Your task to perform on an android device: turn on notifications settings in the gmail app Image 0: 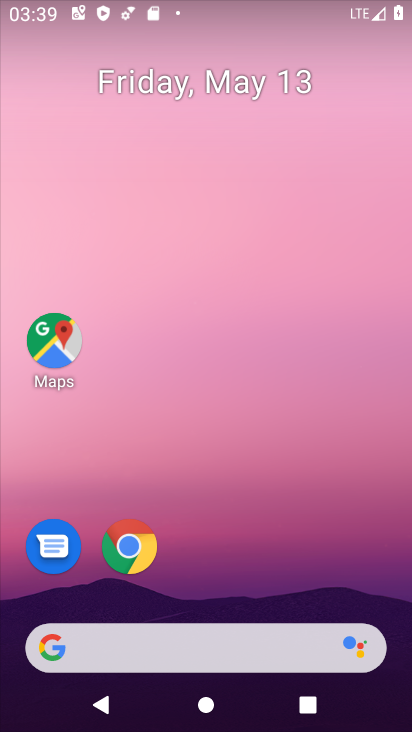
Step 0: drag from (204, 600) to (310, 15)
Your task to perform on an android device: turn on notifications settings in the gmail app Image 1: 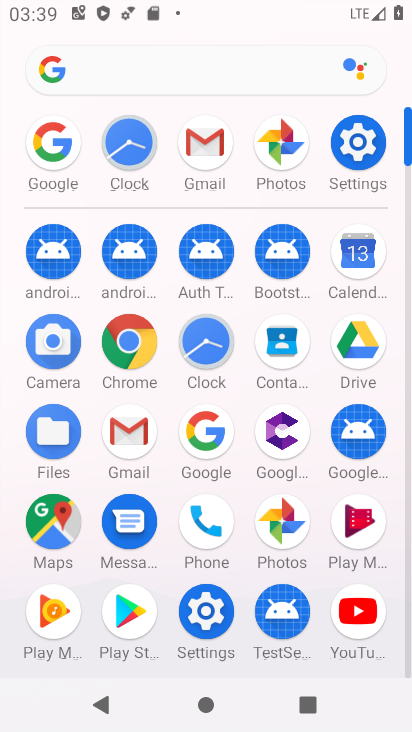
Step 1: click (210, 141)
Your task to perform on an android device: turn on notifications settings in the gmail app Image 2: 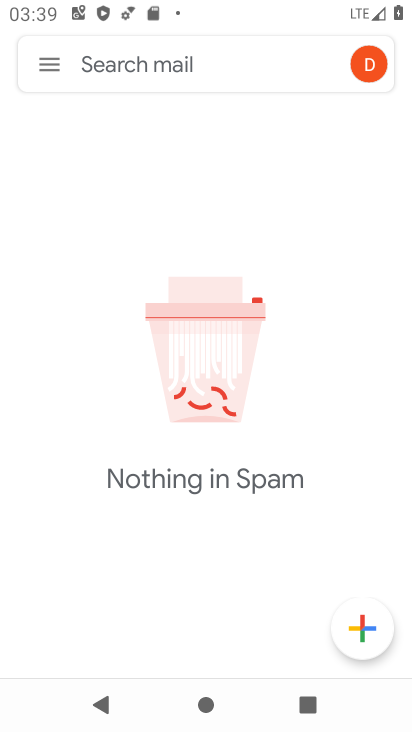
Step 2: click (42, 55)
Your task to perform on an android device: turn on notifications settings in the gmail app Image 3: 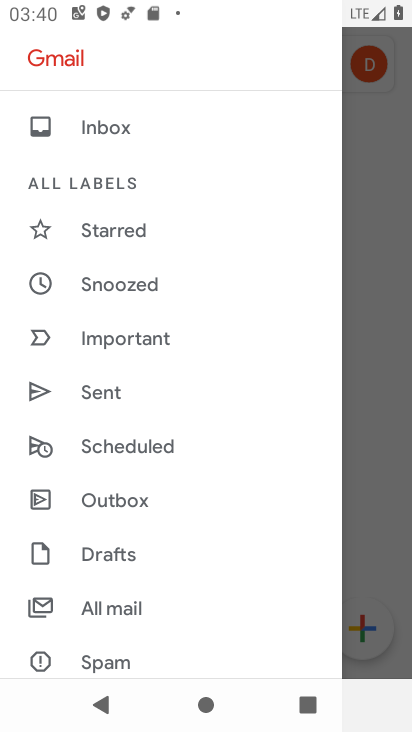
Step 3: drag from (88, 591) to (146, 273)
Your task to perform on an android device: turn on notifications settings in the gmail app Image 4: 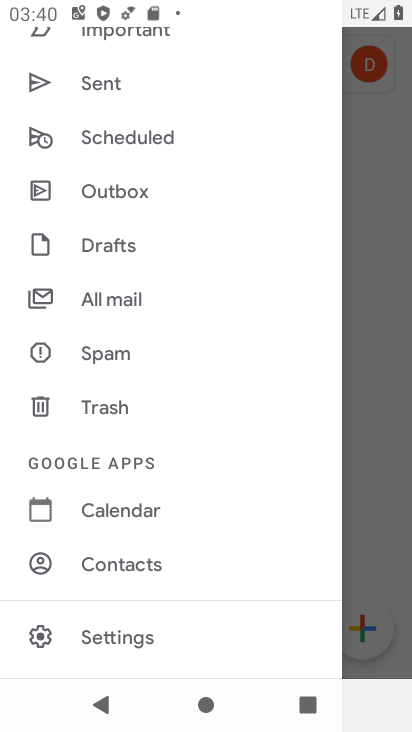
Step 4: click (70, 649)
Your task to perform on an android device: turn on notifications settings in the gmail app Image 5: 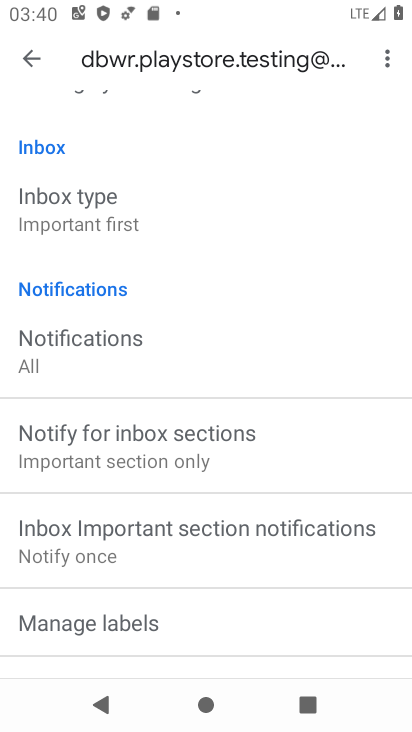
Step 5: click (158, 393)
Your task to perform on an android device: turn on notifications settings in the gmail app Image 6: 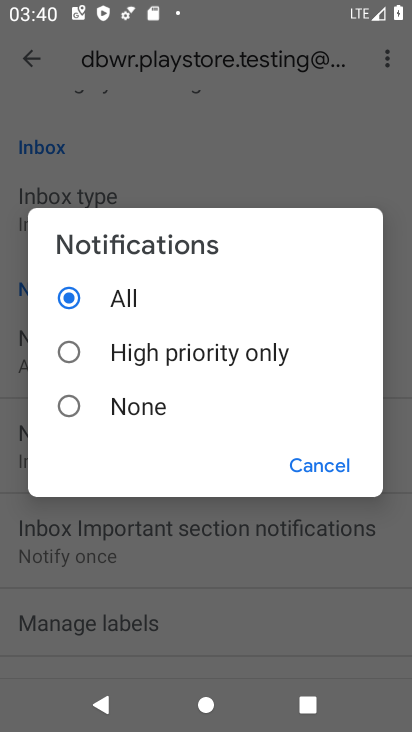
Step 6: task complete